Your task to perform on an android device: turn on location history Image 0: 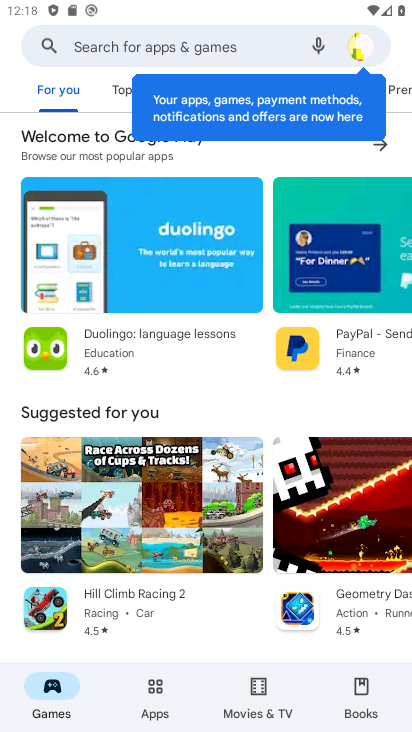
Step 0: press home button
Your task to perform on an android device: turn on location history Image 1: 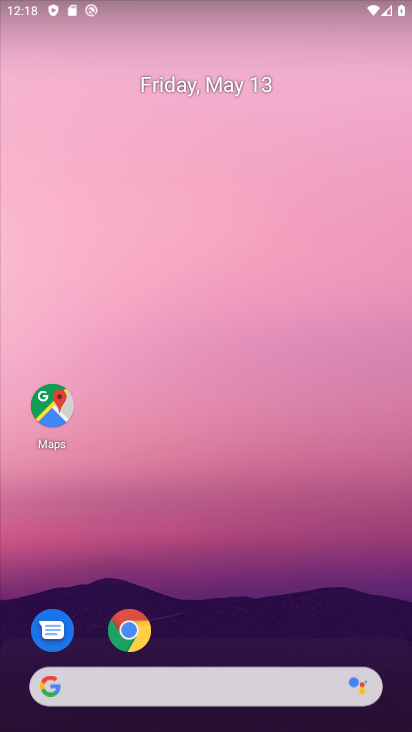
Step 1: drag from (232, 579) to (281, 146)
Your task to perform on an android device: turn on location history Image 2: 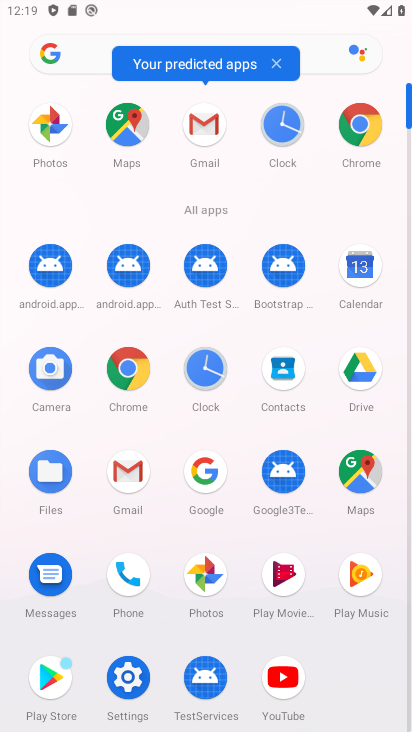
Step 2: click (127, 679)
Your task to perform on an android device: turn on location history Image 3: 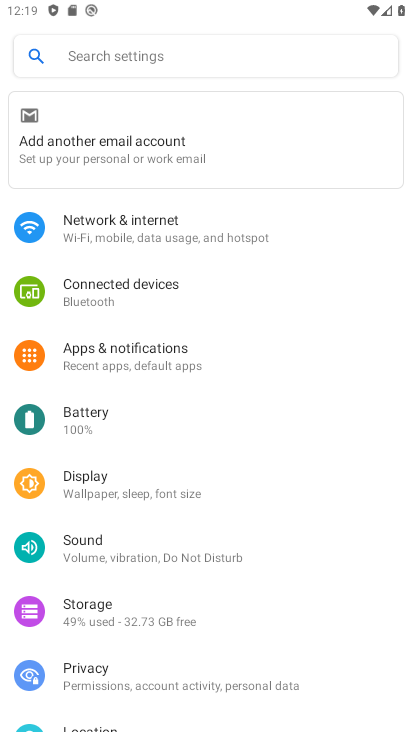
Step 3: drag from (129, 639) to (163, 321)
Your task to perform on an android device: turn on location history Image 4: 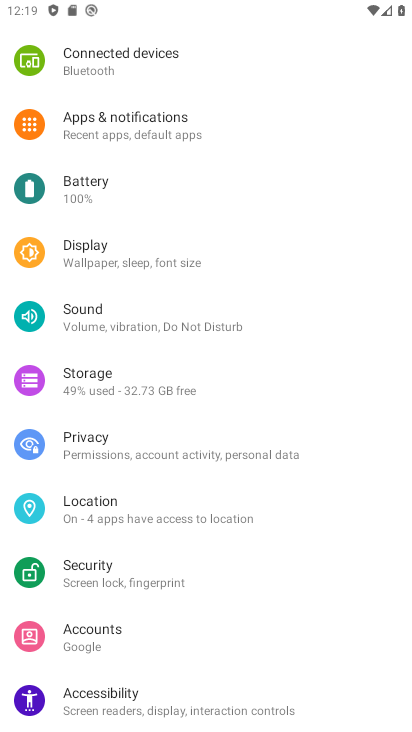
Step 4: click (117, 523)
Your task to perform on an android device: turn on location history Image 5: 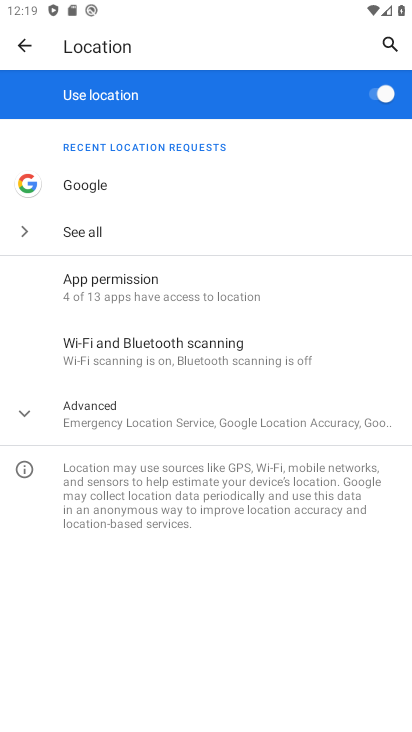
Step 5: task complete